Your task to perform on an android device: Open ESPN.com Image 0: 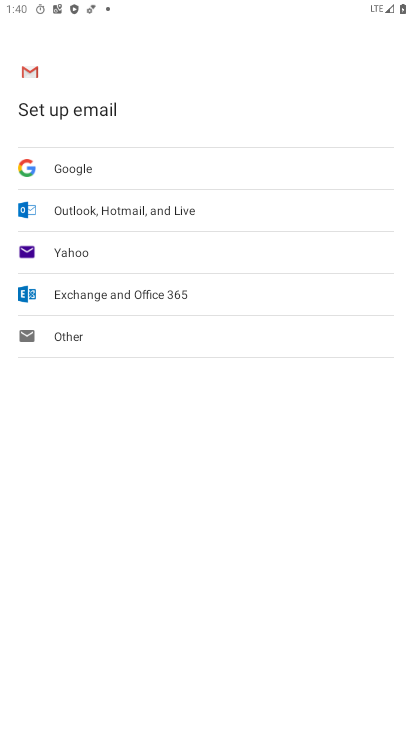
Step 0: press home button
Your task to perform on an android device: Open ESPN.com Image 1: 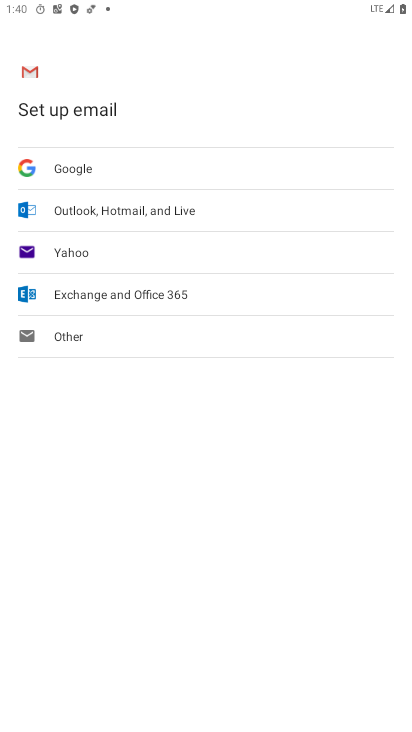
Step 1: press home button
Your task to perform on an android device: Open ESPN.com Image 2: 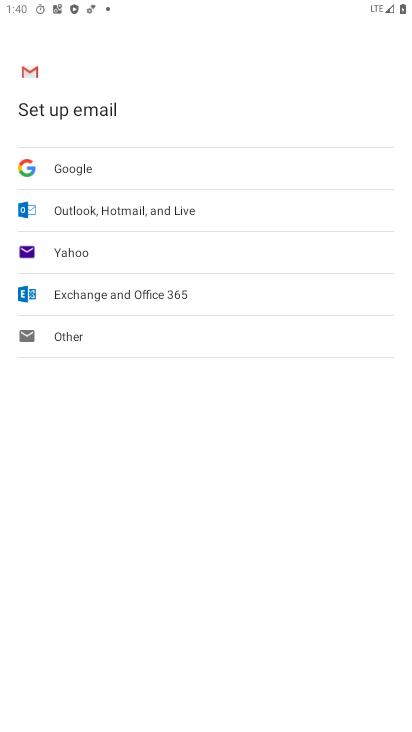
Step 2: click (226, 245)
Your task to perform on an android device: Open ESPN.com Image 3: 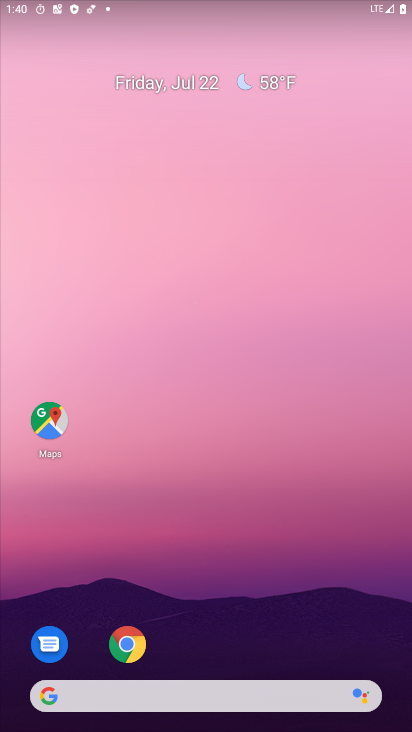
Step 3: drag from (213, 622) to (254, 226)
Your task to perform on an android device: Open ESPN.com Image 4: 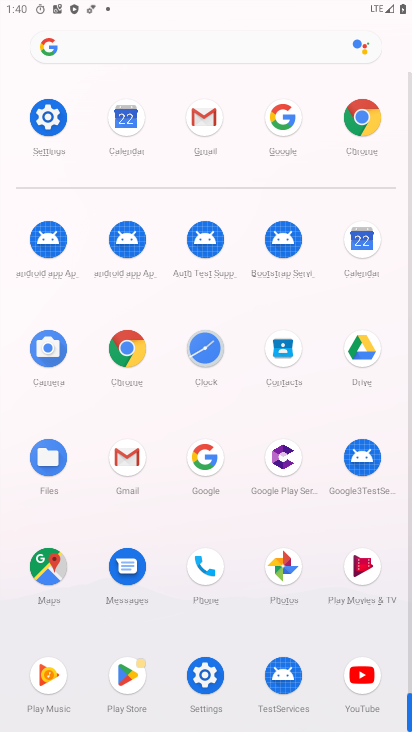
Step 4: click (159, 45)
Your task to perform on an android device: Open ESPN.com Image 5: 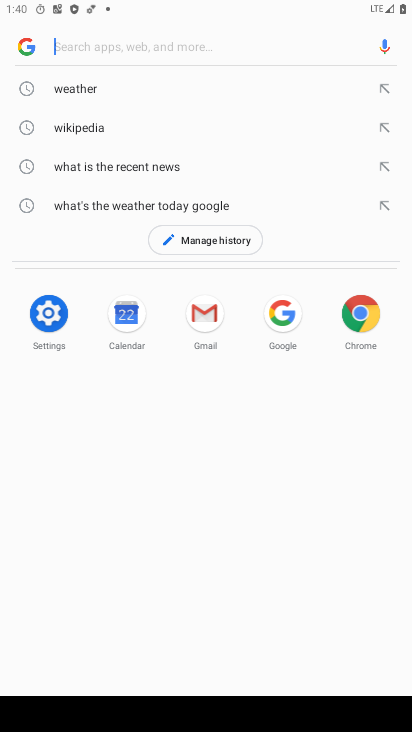
Step 5: type "espn.com"
Your task to perform on an android device: Open ESPN.com Image 6: 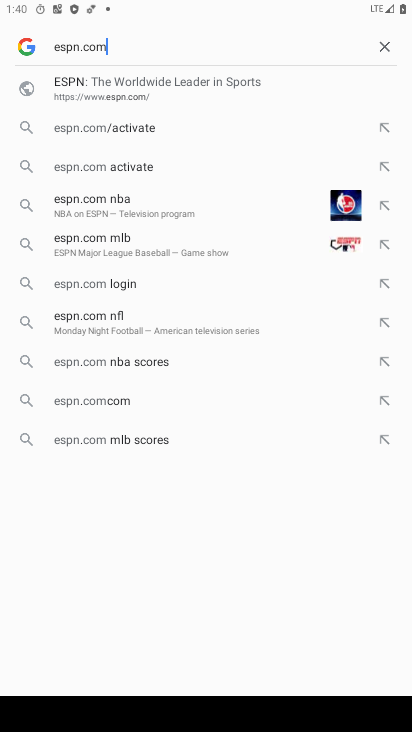
Step 6: click (103, 98)
Your task to perform on an android device: Open ESPN.com Image 7: 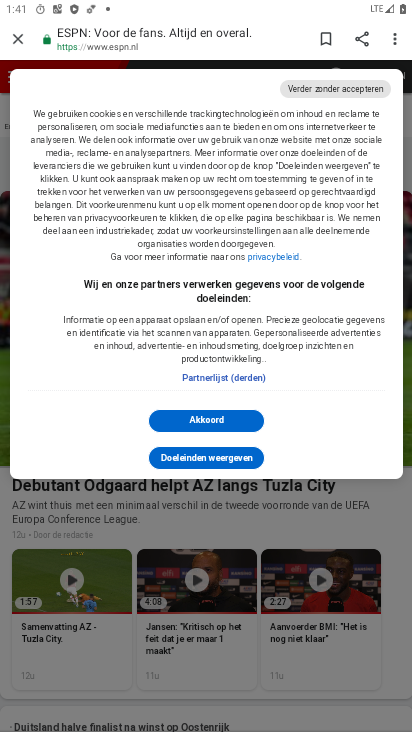
Step 7: task complete